Your task to perform on an android device: open app "HBO Max: Stream TV & Movies" (install if not already installed) Image 0: 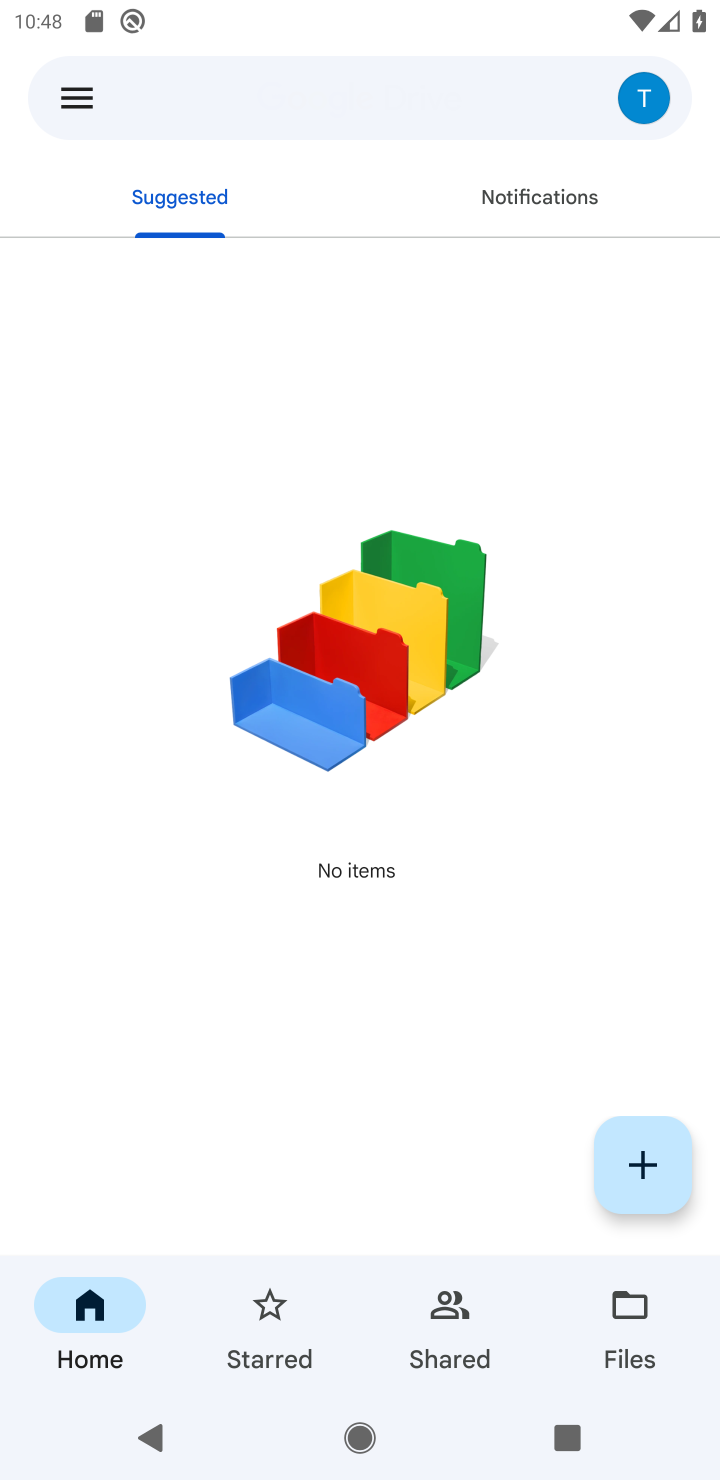
Step 0: press home button
Your task to perform on an android device: open app "HBO Max: Stream TV & Movies" (install if not already installed) Image 1: 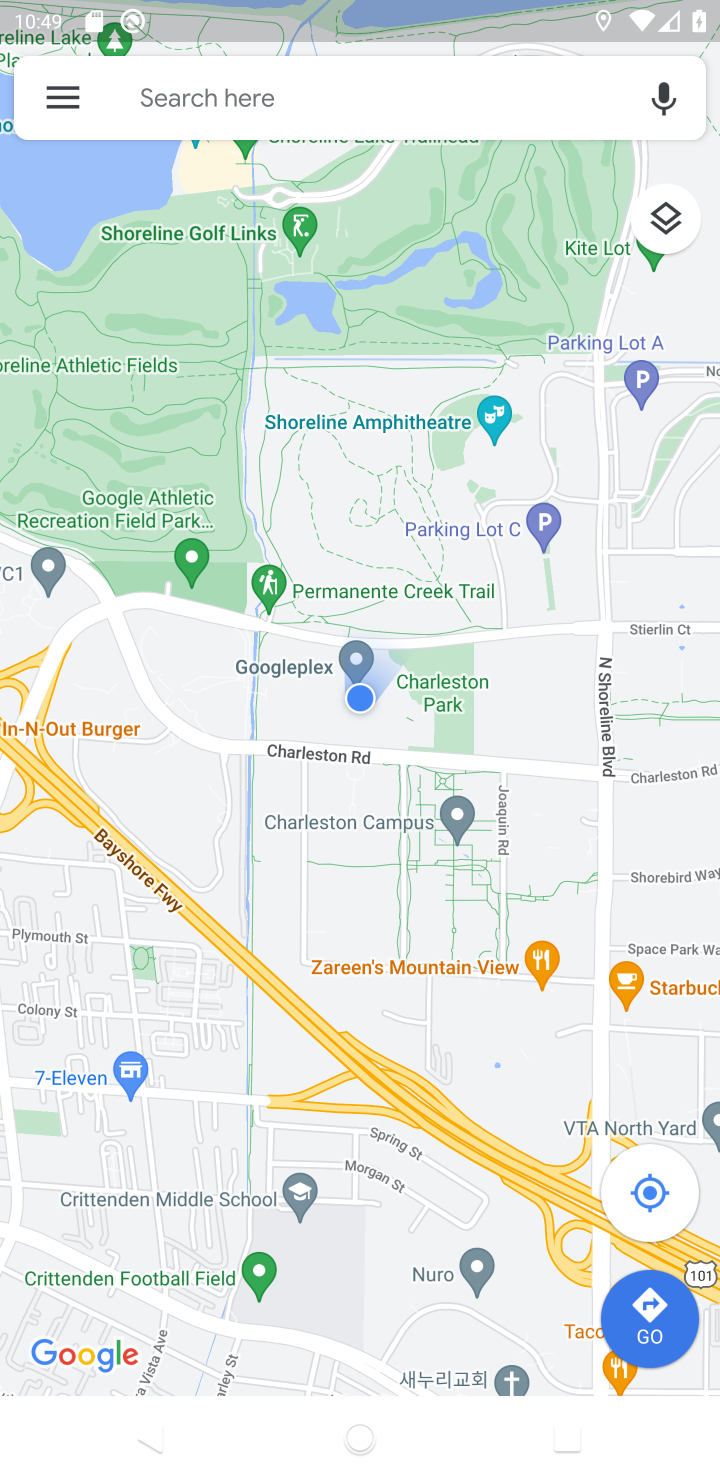
Step 1: press home button
Your task to perform on an android device: open app "HBO Max: Stream TV & Movies" (install if not already installed) Image 2: 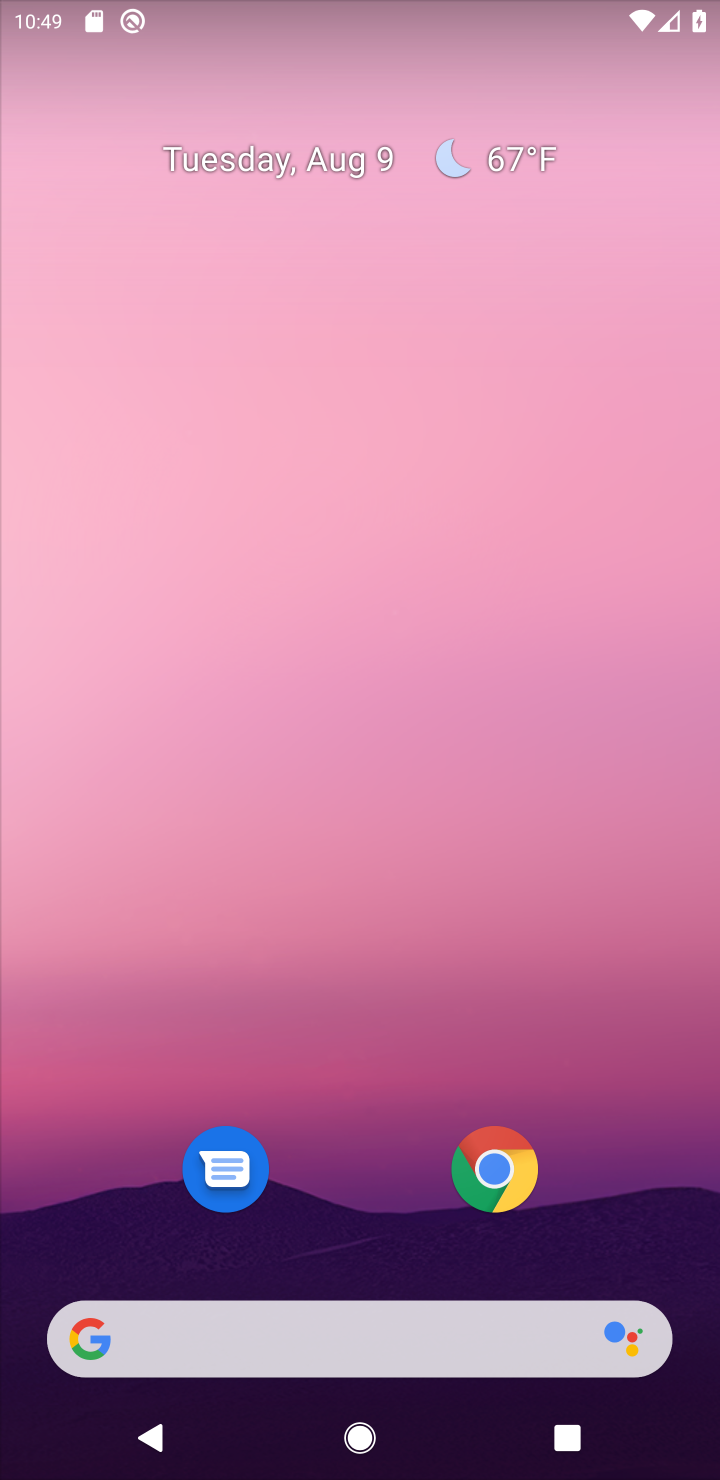
Step 2: drag from (592, 1147) to (600, 157)
Your task to perform on an android device: open app "HBO Max: Stream TV & Movies" (install if not already installed) Image 3: 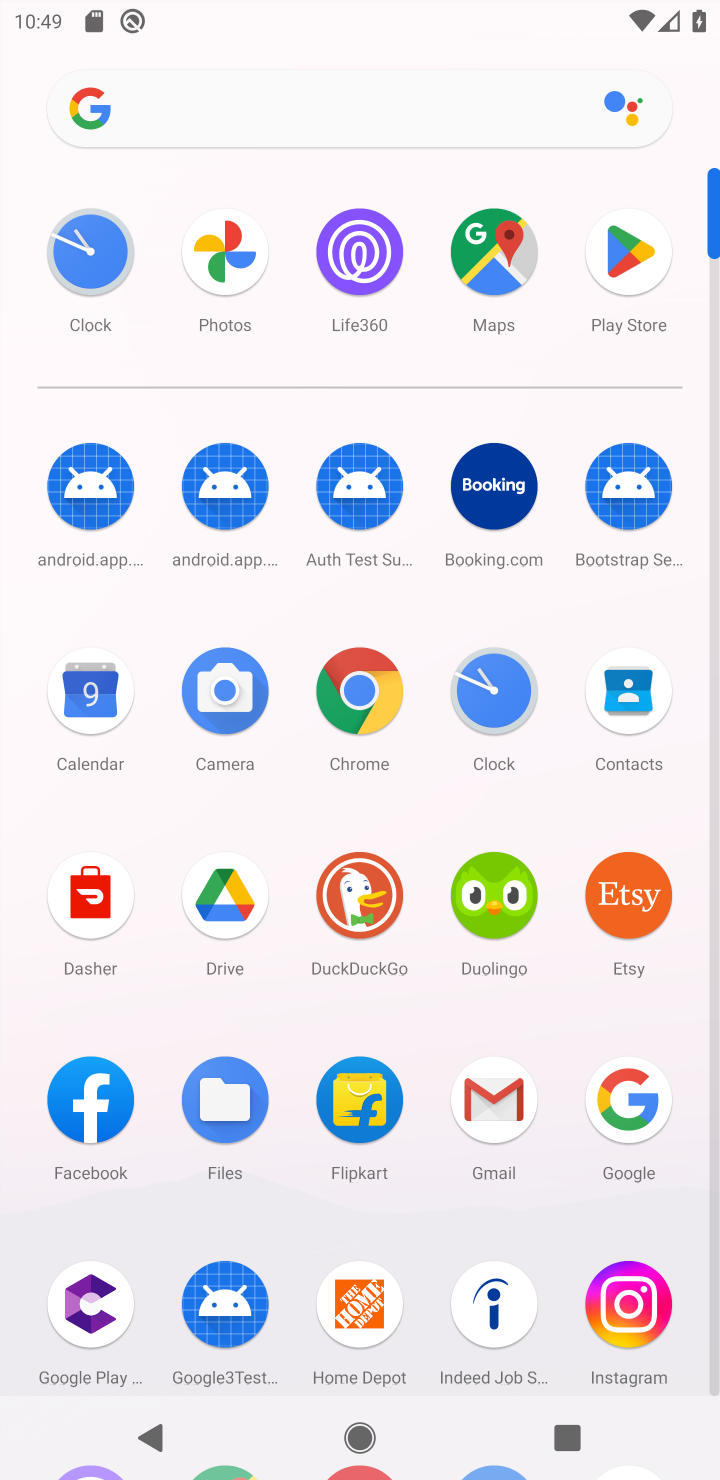
Step 3: click (624, 270)
Your task to perform on an android device: open app "HBO Max: Stream TV & Movies" (install if not already installed) Image 4: 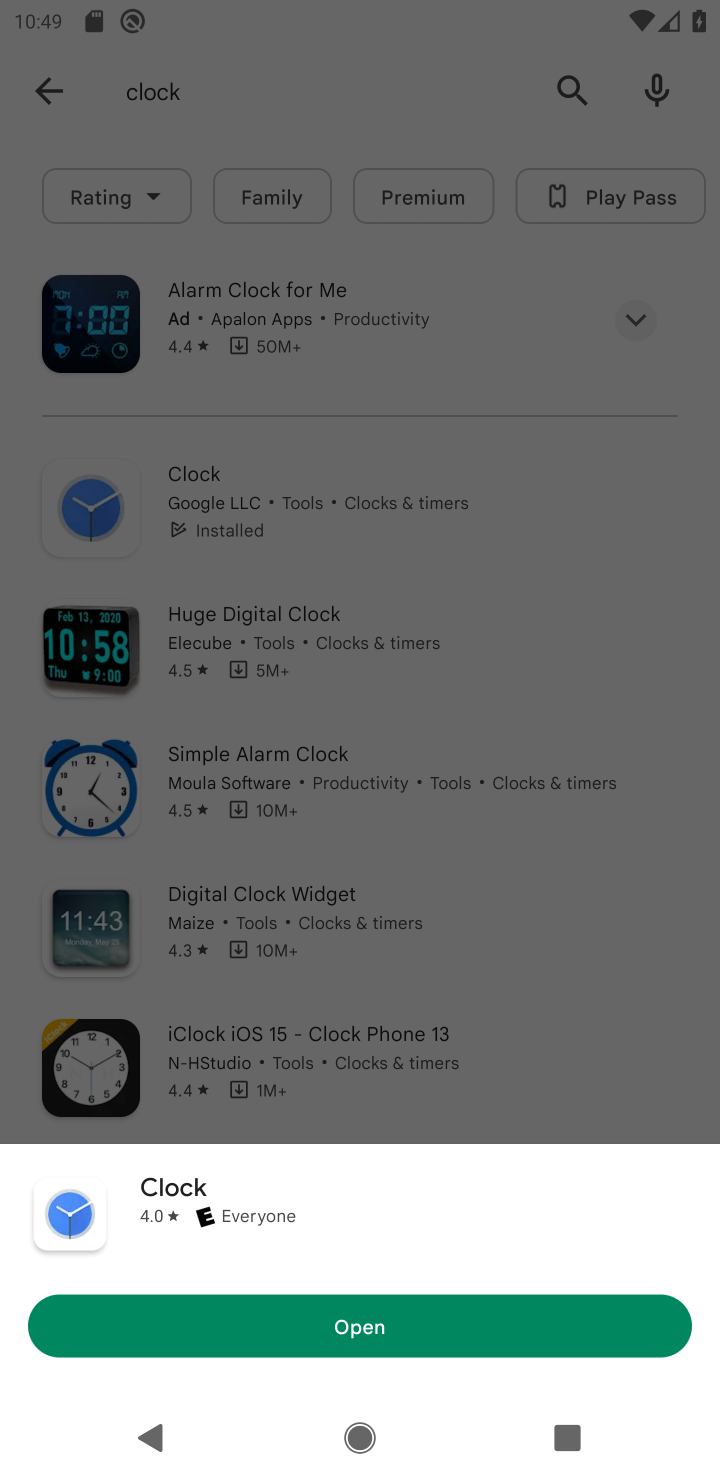
Step 4: press back button
Your task to perform on an android device: open app "HBO Max: Stream TV & Movies" (install if not already installed) Image 5: 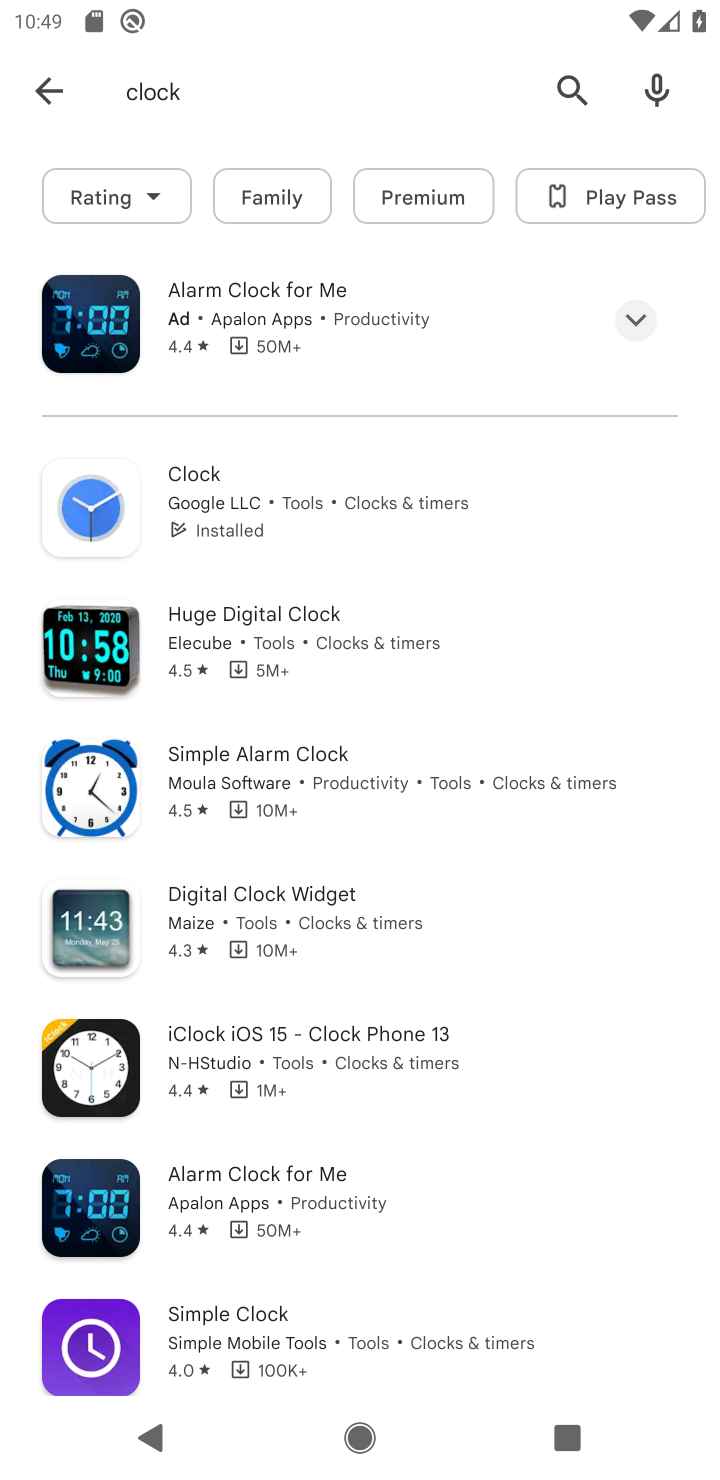
Step 5: click (567, 95)
Your task to perform on an android device: open app "HBO Max: Stream TV & Movies" (install if not already installed) Image 6: 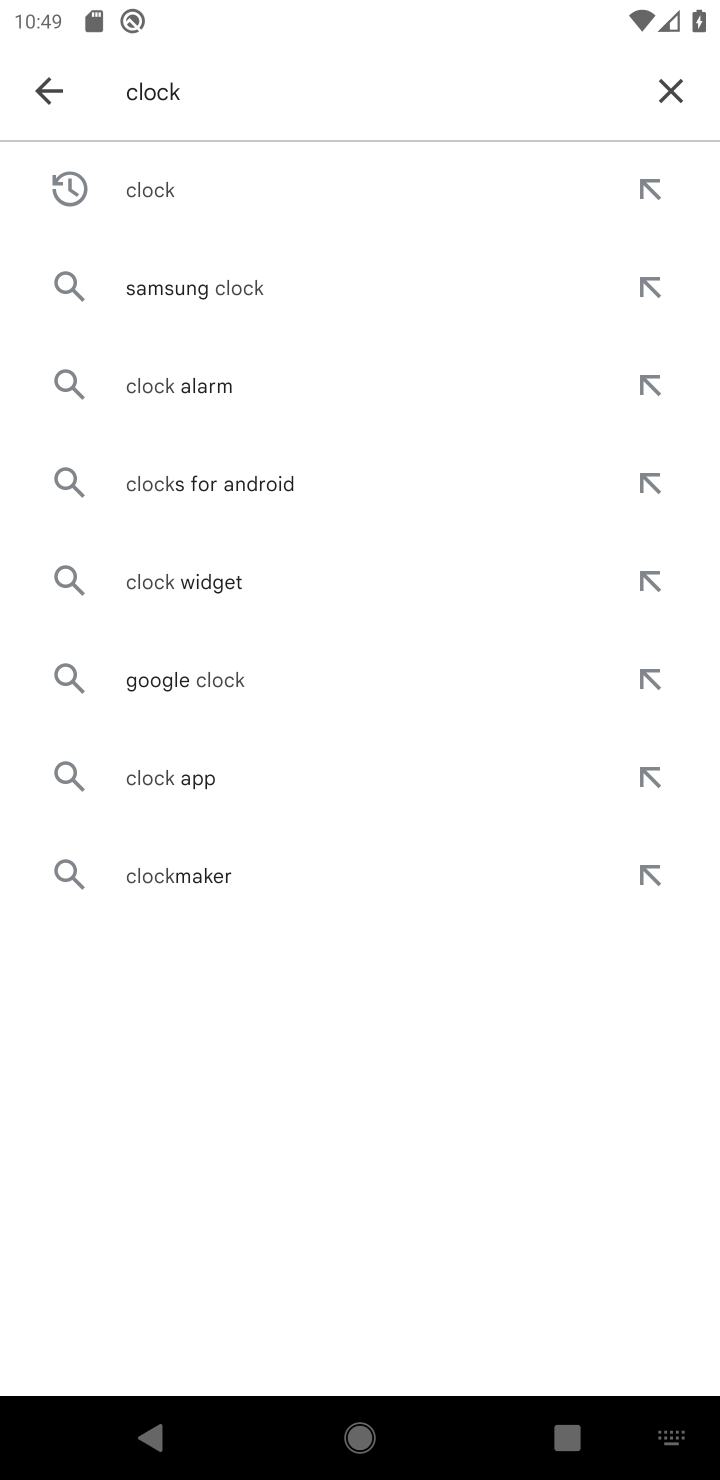
Step 6: click (665, 90)
Your task to perform on an android device: open app "HBO Max: Stream TV & Movies" (install if not already installed) Image 7: 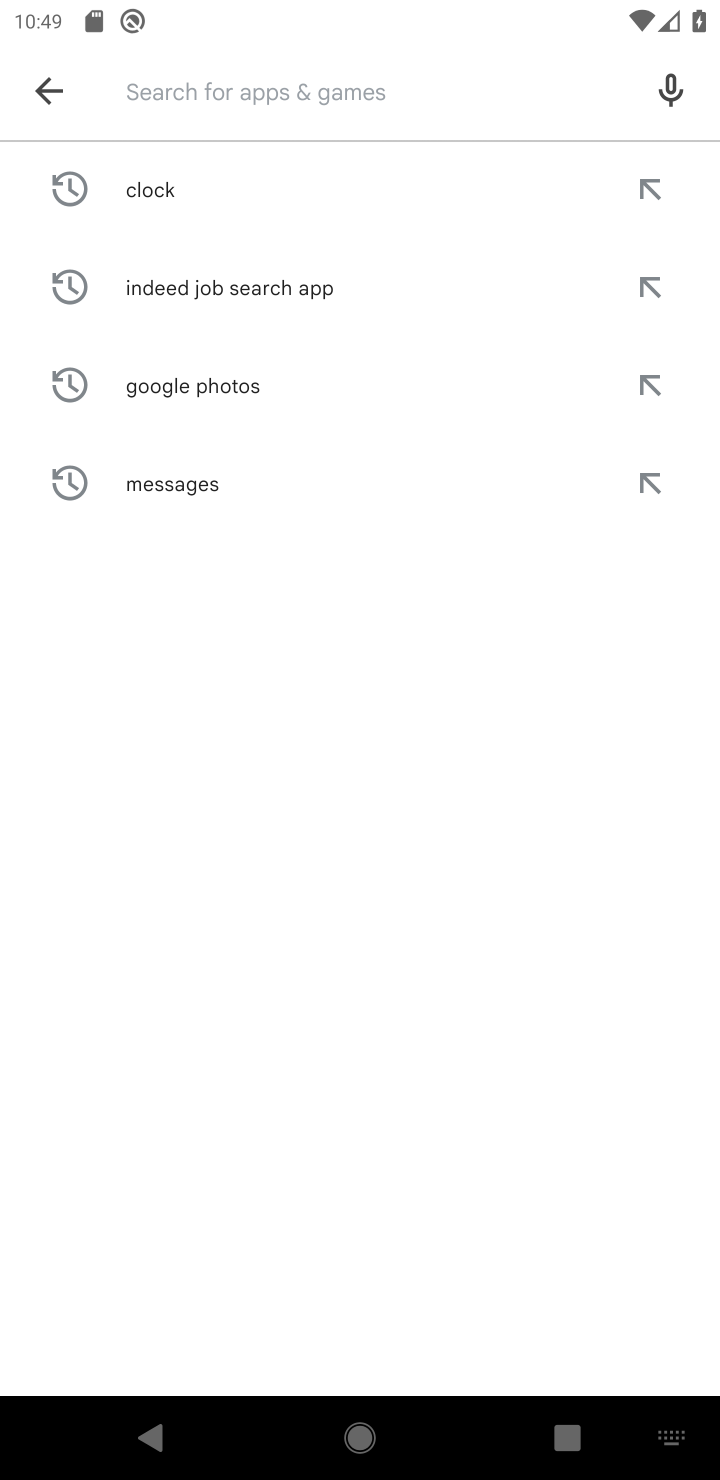
Step 7: type "HBO Max: Stream TV & Movies"
Your task to perform on an android device: open app "HBO Max: Stream TV & Movies" (install if not already installed) Image 8: 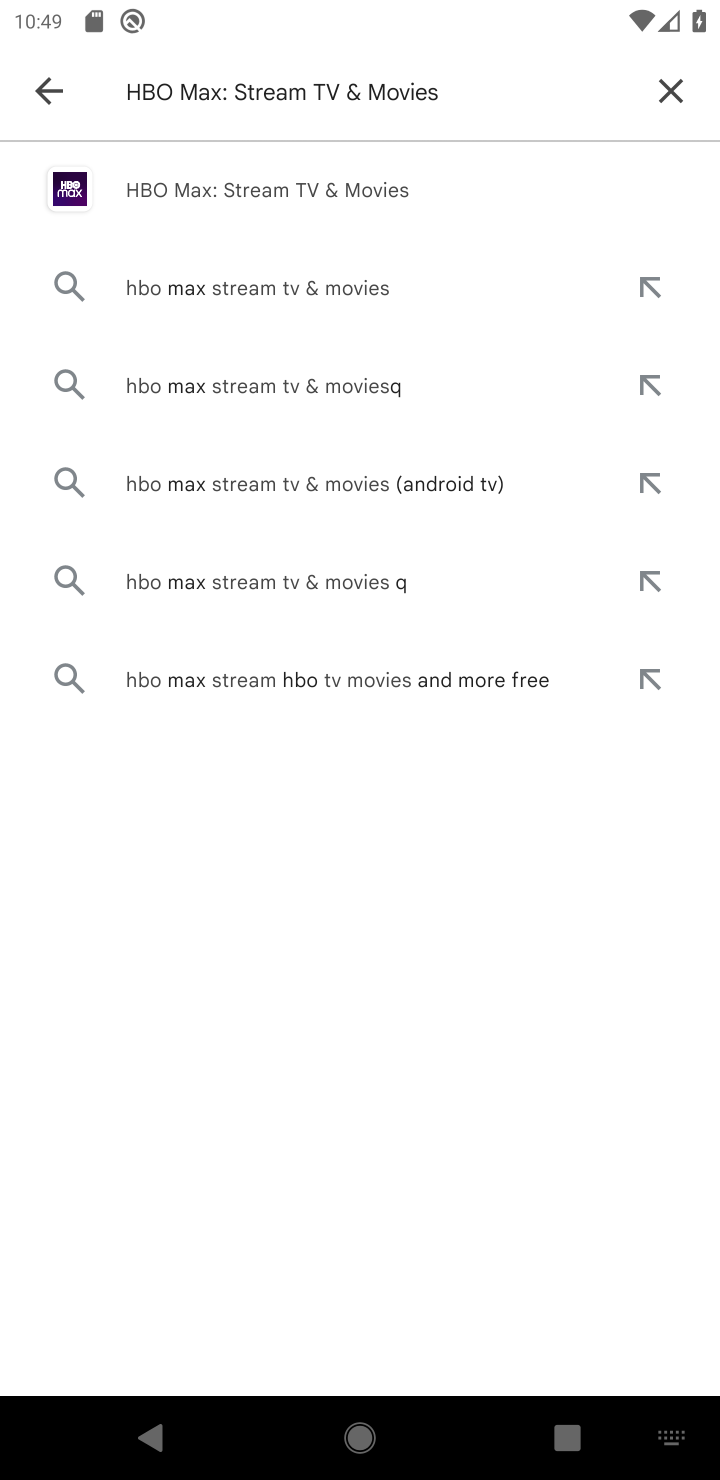
Step 8: click (346, 190)
Your task to perform on an android device: open app "HBO Max: Stream TV & Movies" (install if not already installed) Image 9: 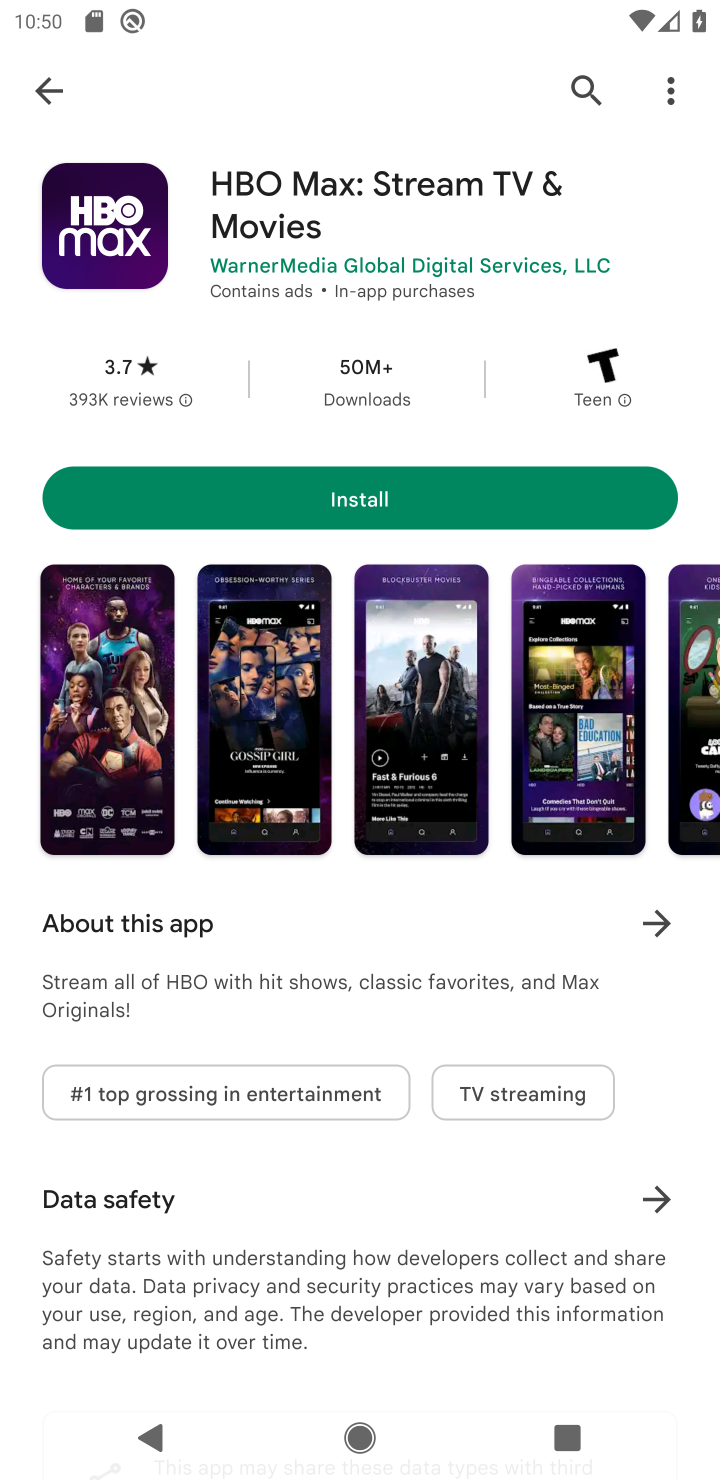
Step 9: click (489, 496)
Your task to perform on an android device: open app "HBO Max: Stream TV & Movies" (install if not already installed) Image 10: 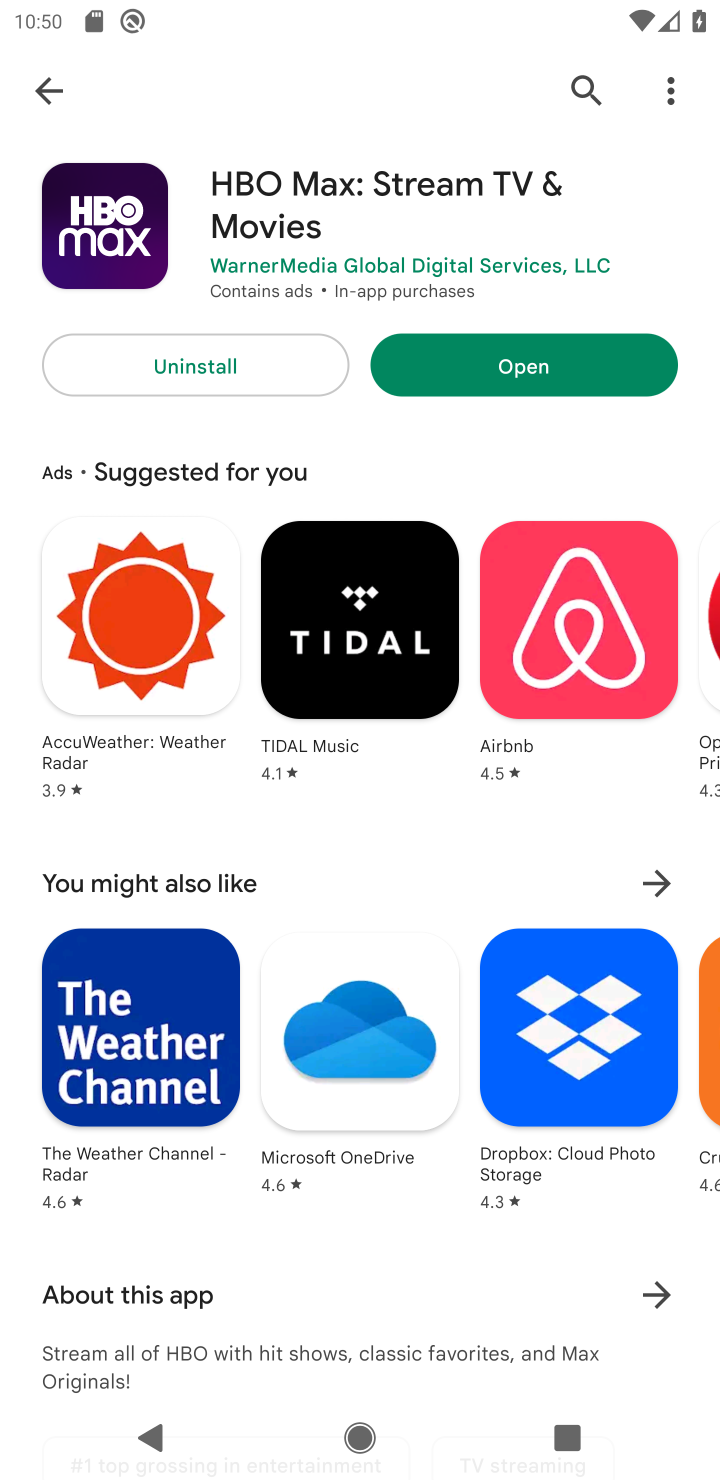
Step 10: click (517, 367)
Your task to perform on an android device: open app "HBO Max: Stream TV & Movies" (install if not already installed) Image 11: 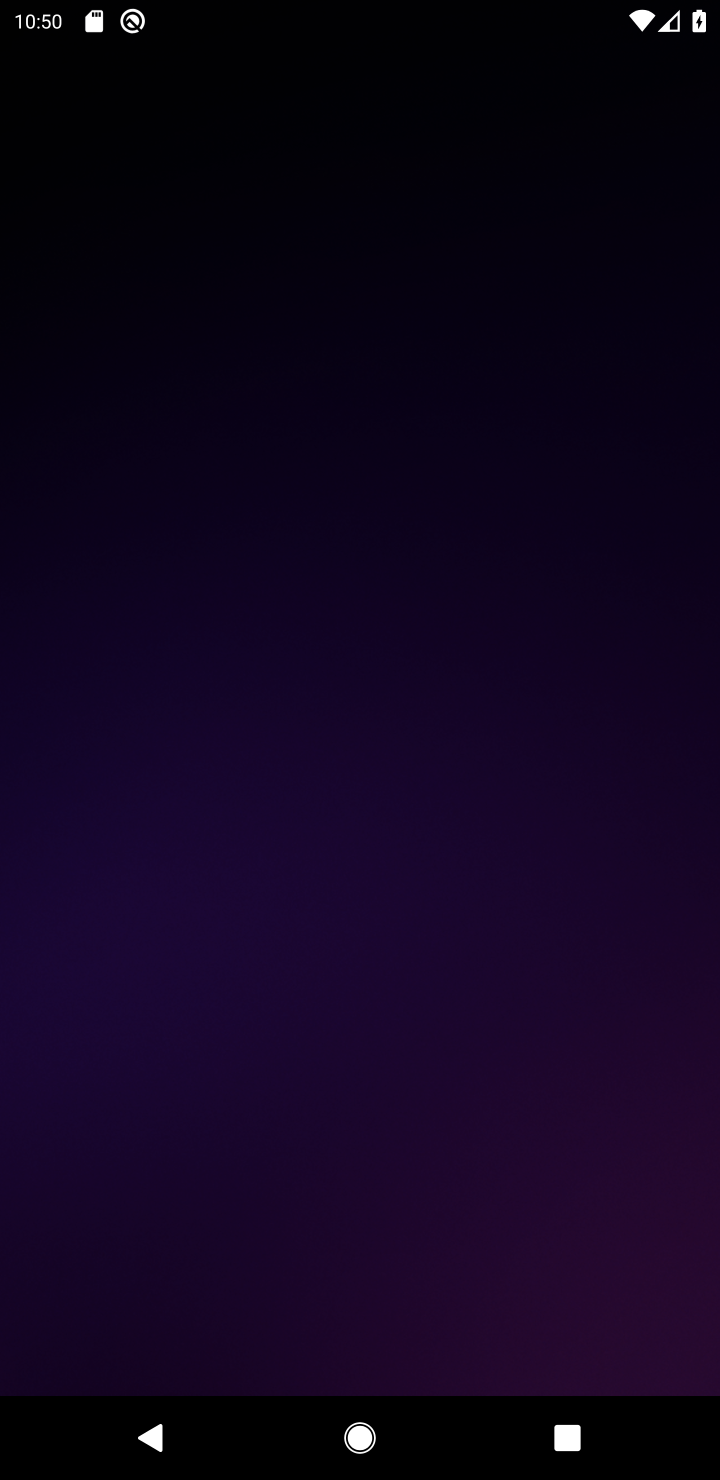
Step 11: task complete